Your task to perform on an android device: What's the weather going to be tomorrow? Image 0: 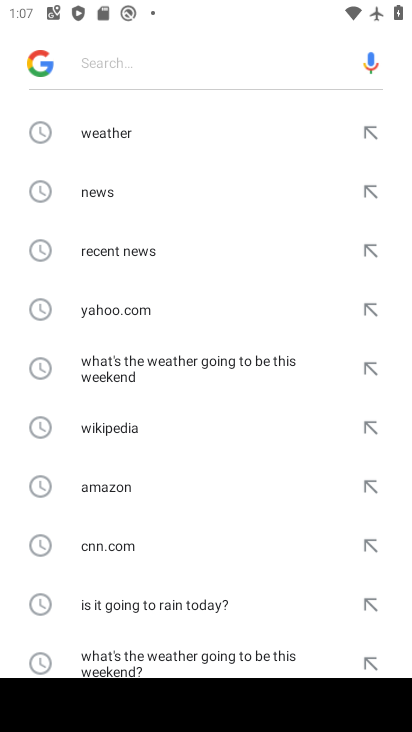
Step 0: type "weather"
Your task to perform on an android device: What's the weather going to be tomorrow? Image 1: 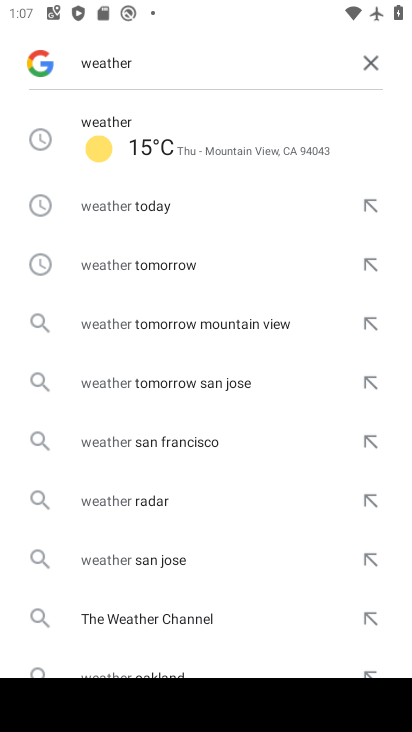
Step 1: click (155, 147)
Your task to perform on an android device: What's the weather going to be tomorrow? Image 2: 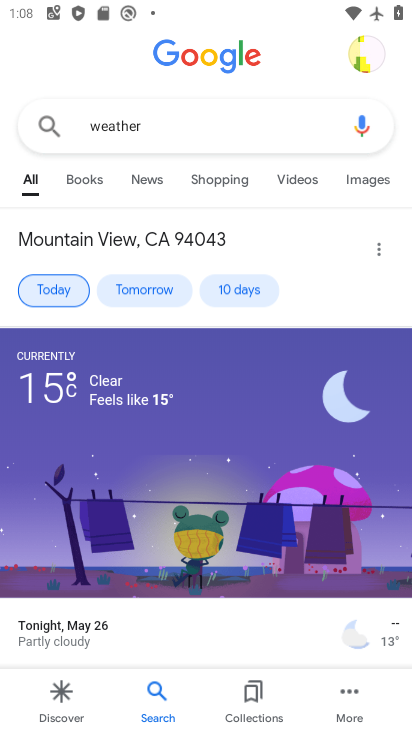
Step 2: drag from (260, 463) to (316, 15)
Your task to perform on an android device: What's the weather going to be tomorrow? Image 3: 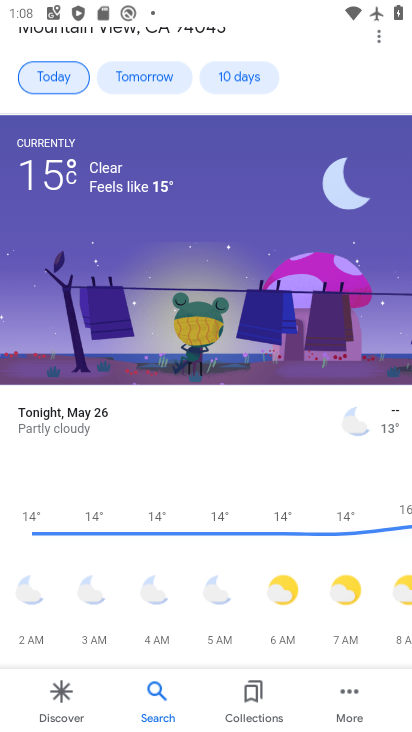
Step 3: drag from (247, 522) to (228, 578)
Your task to perform on an android device: What's the weather going to be tomorrow? Image 4: 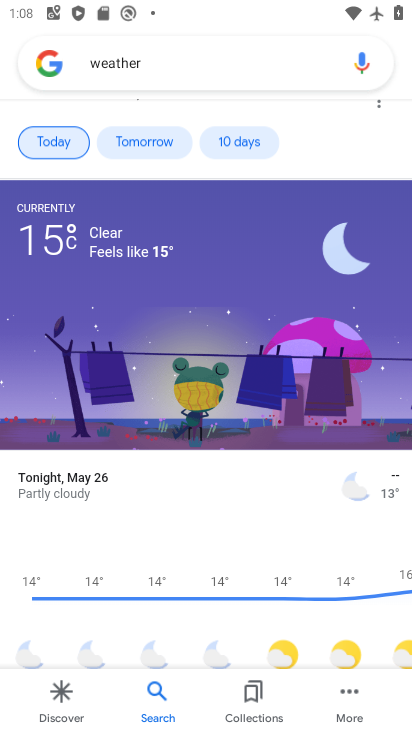
Step 4: click (125, 143)
Your task to perform on an android device: What's the weather going to be tomorrow? Image 5: 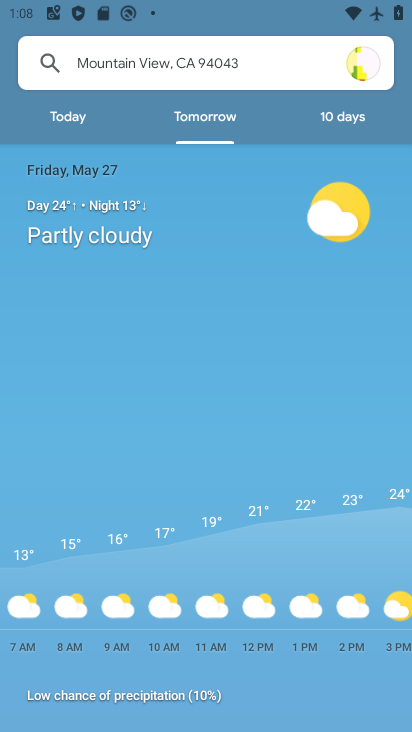
Step 5: task complete